Your task to perform on an android device: make emails show in primary in the gmail app Image 0: 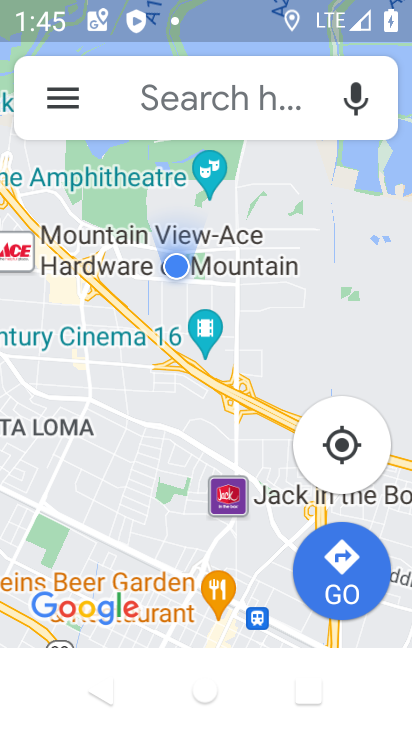
Step 0: press home button
Your task to perform on an android device: make emails show in primary in the gmail app Image 1: 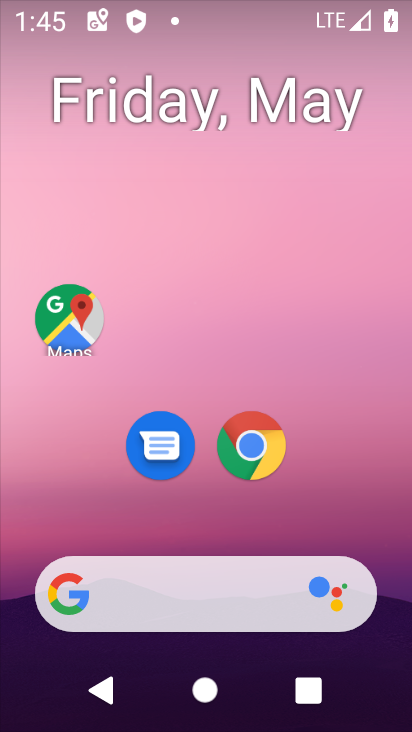
Step 1: drag from (202, 504) to (222, 56)
Your task to perform on an android device: make emails show in primary in the gmail app Image 2: 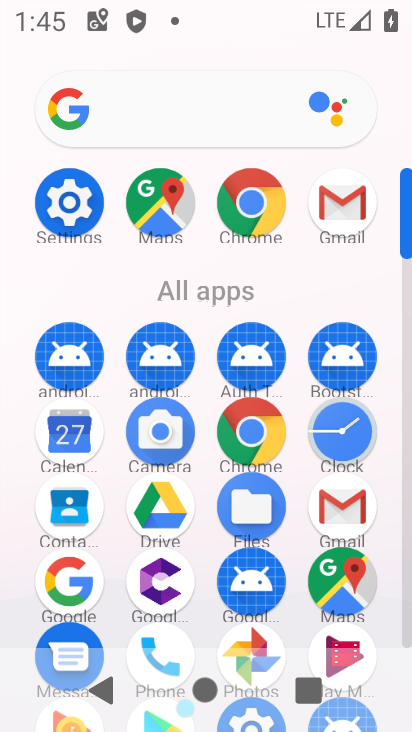
Step 2: click (340, 497)
Your task to perform on an android device: make emails show in primary in the gmail app Image 3: 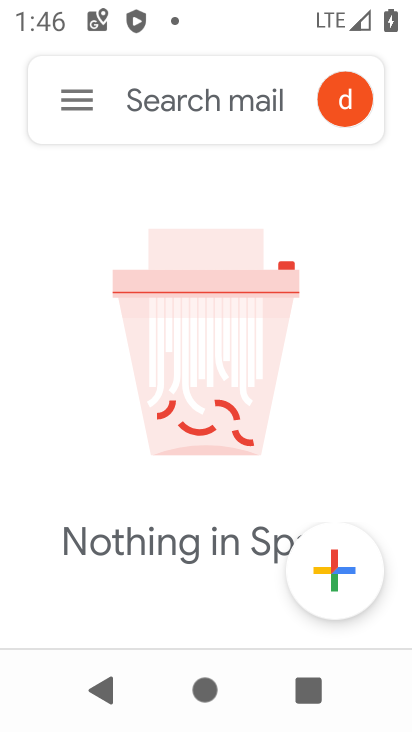
Step 3: click (80, 100)
Your task to perform on an android device: make emails show in primary in the gmail app Image 4: 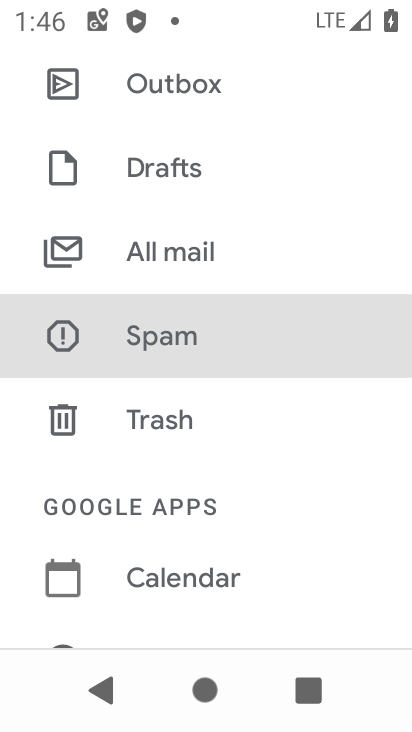
Step 4: drag from (256, 575) to (257, 322)
Your task to perform on an android device: make emails show in primary in the gmail app Image 5: 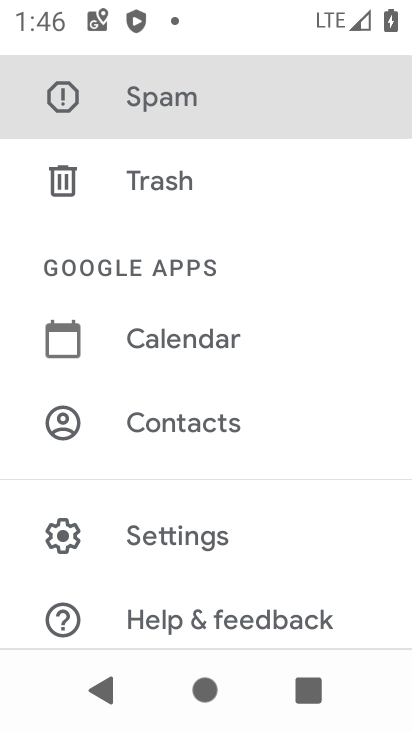
Step 5: click (233, 519)
Your task to perform on an android device: make emails show in primary in the gmail app Image 6: 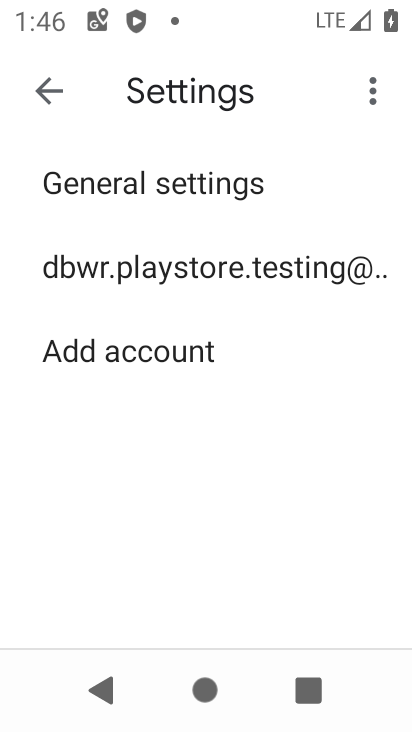
Step 6: click (241, 267)
Your task to perform on an android device: make emails show in primary in the gmail app Image 7: 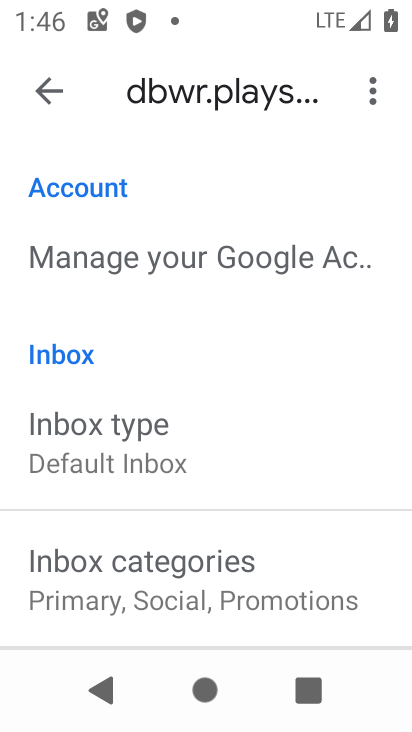
Step 7: click (213, 429)
Your task to perform on an android device: make emails show in primary in the gmail app Image 8: 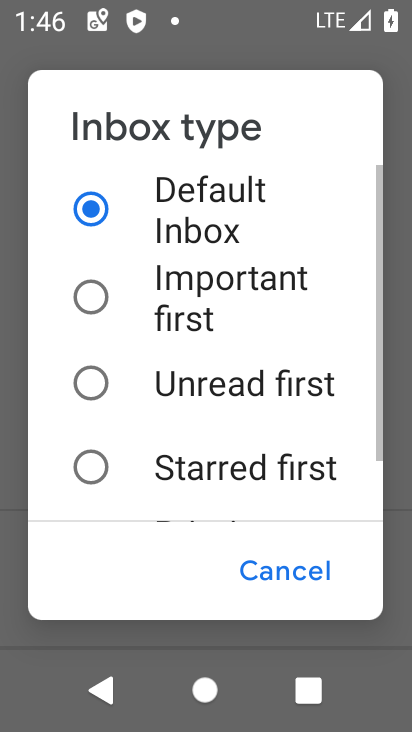
Step 8: click (95, 206)
Your task to perform on an android device: make emails show in primary in the gmail app Image 9: 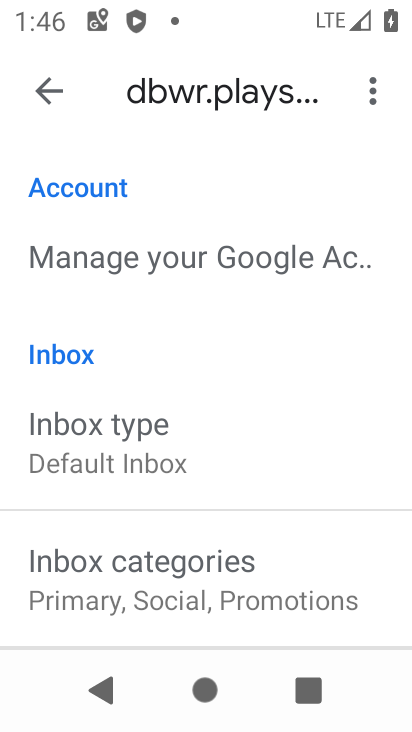
Step 9: task complete